Your task to perform on an android device: Open Yahoo.com Image 0: 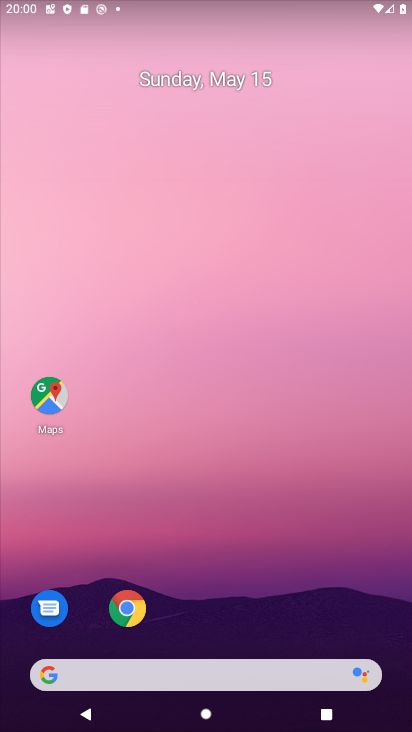
Step 0: click (129, 606)
Your task to perform on an android device: Open Yahoo.com Image 1: 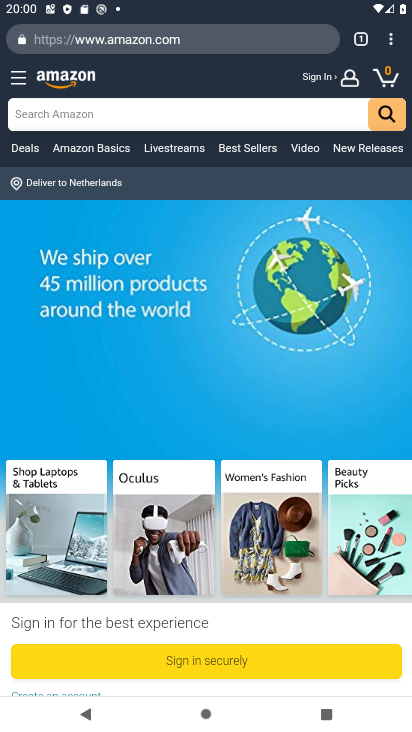
Step 1: press back button
Your task to perform on an android device: Open Yahoo.com Image 2: 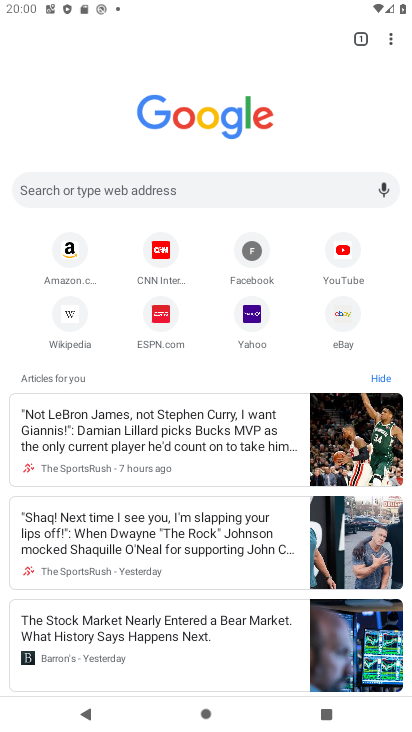
Step 2: click (253, 315)
Your task to perform on an android device: Open Yahoo.com Image 3: 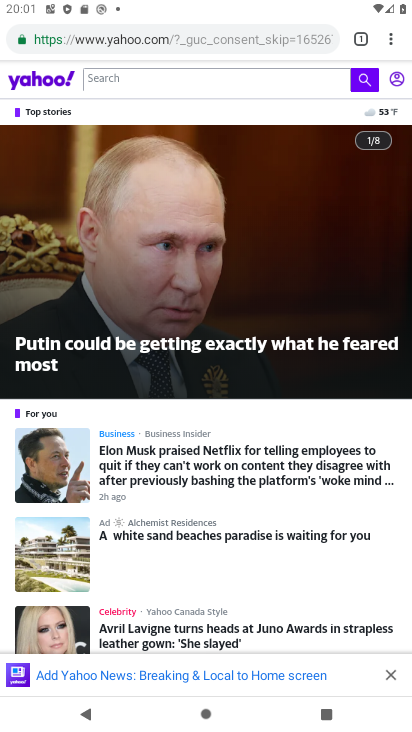
Step 3: task complete